Your task to perform on an android device: open app "Microsoft Outlook" (install if not already installed) and enter user name: "brand@gmail.com" and password: "persuasiveness" Image 0: 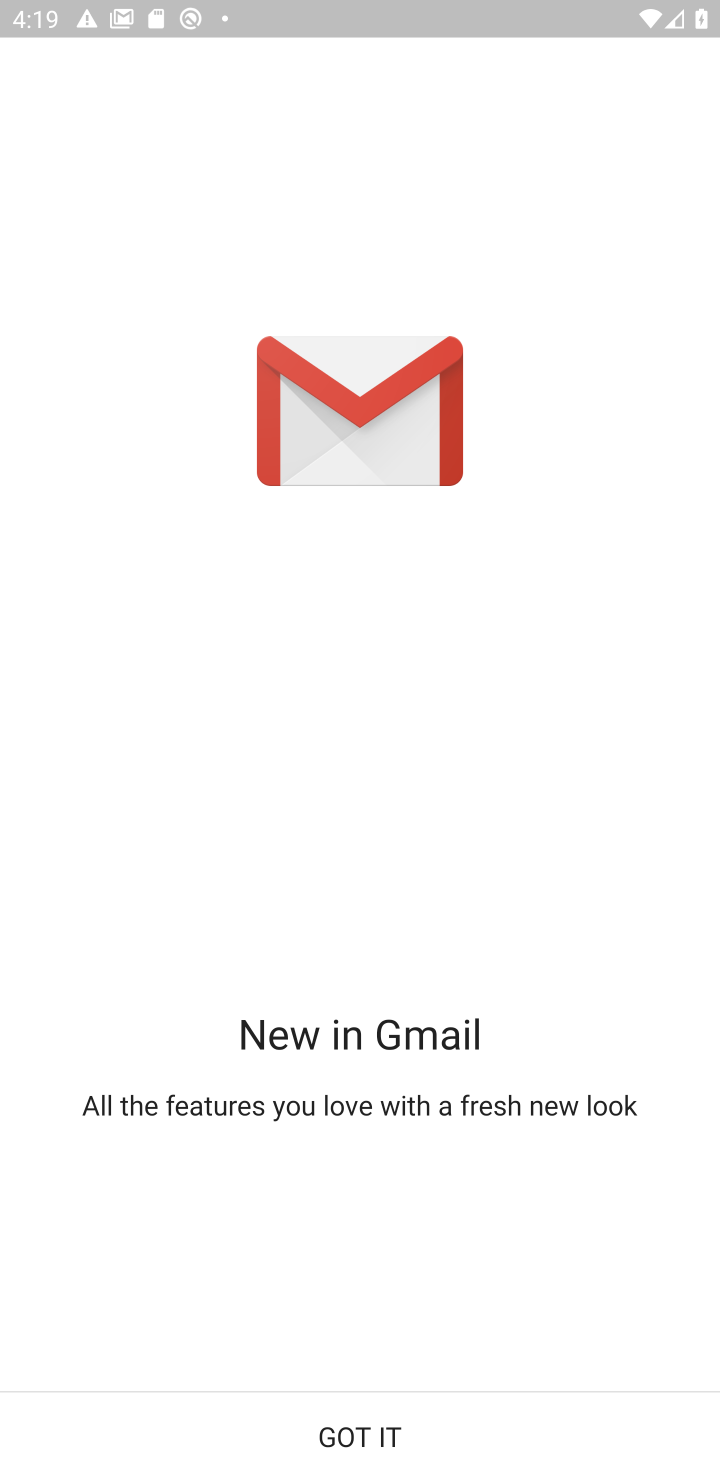
Step 0: press home button
Your task to perform on an android device: open app "Microsoft Outlook" (install if not already installed) and enter user name: "brand@gmail.com" and password: "persuasiveness" Image 1: 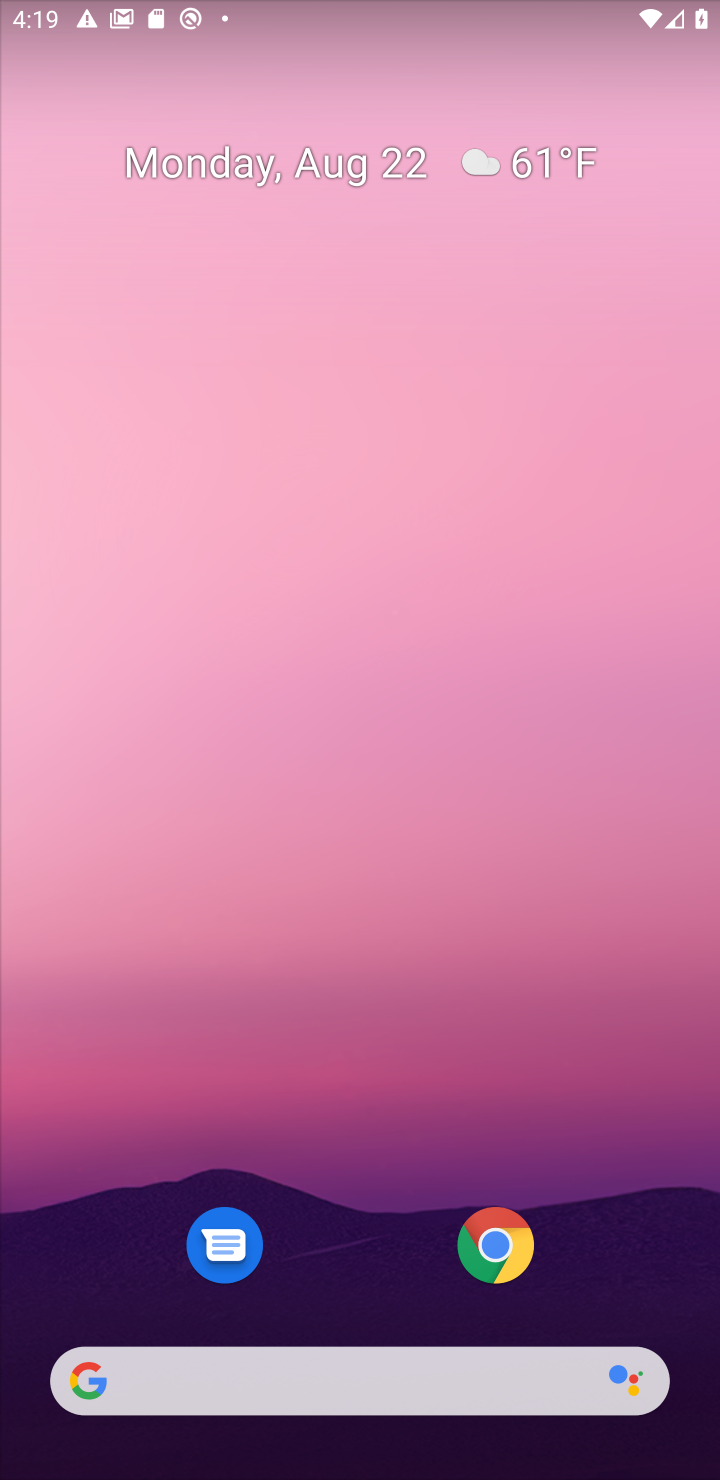
Step 1: drag from (587, 1232) to (564, 104)
Your task to perform on an android device: open app "Microsoft Outlook" (install if not already installed) and enter user name: "brand@gmail.com" and password: "persuasiveness" Image 2: 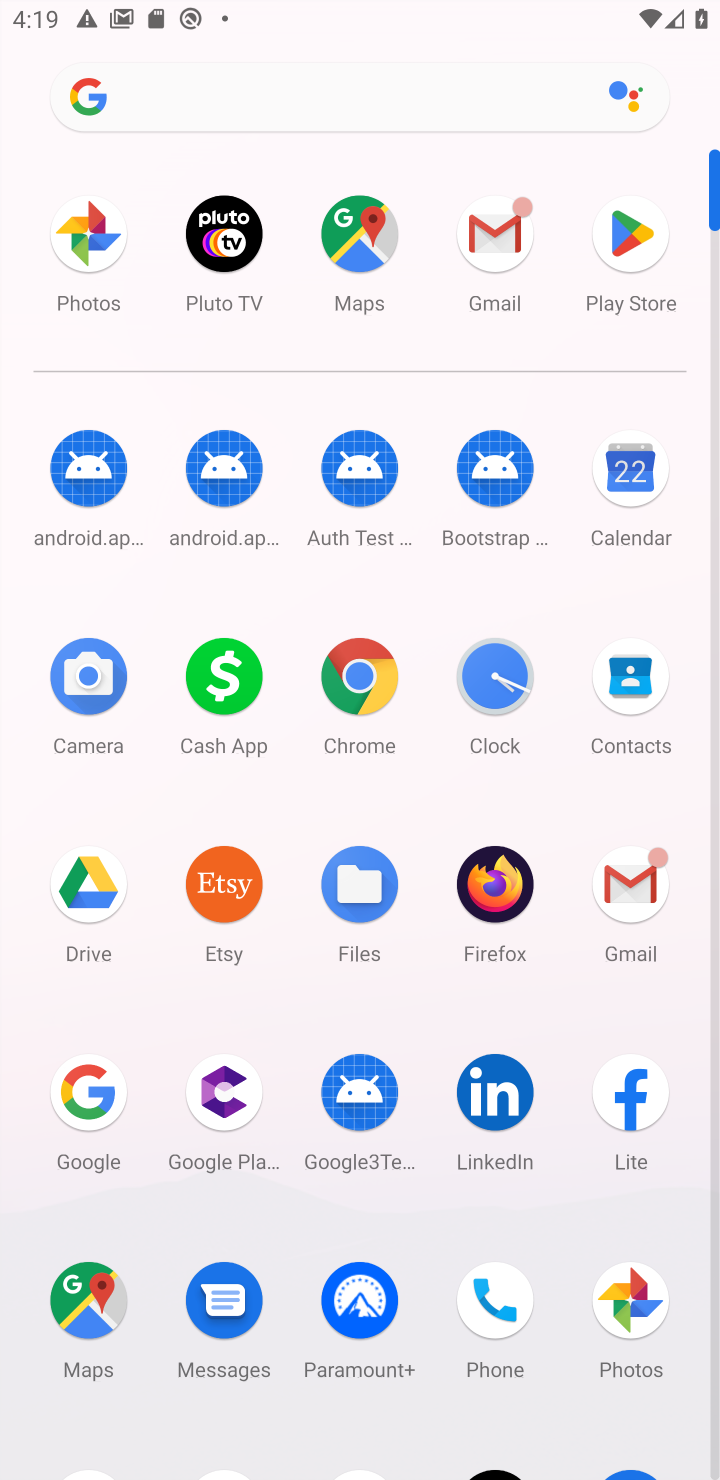
Step 2: click (624, 245)
Your task to perform on an android device: open app "Microsoft Outlook" (install if not already installed) and enter user name: "brand@gmail.com" and password: "persuasiveness" Image 3: 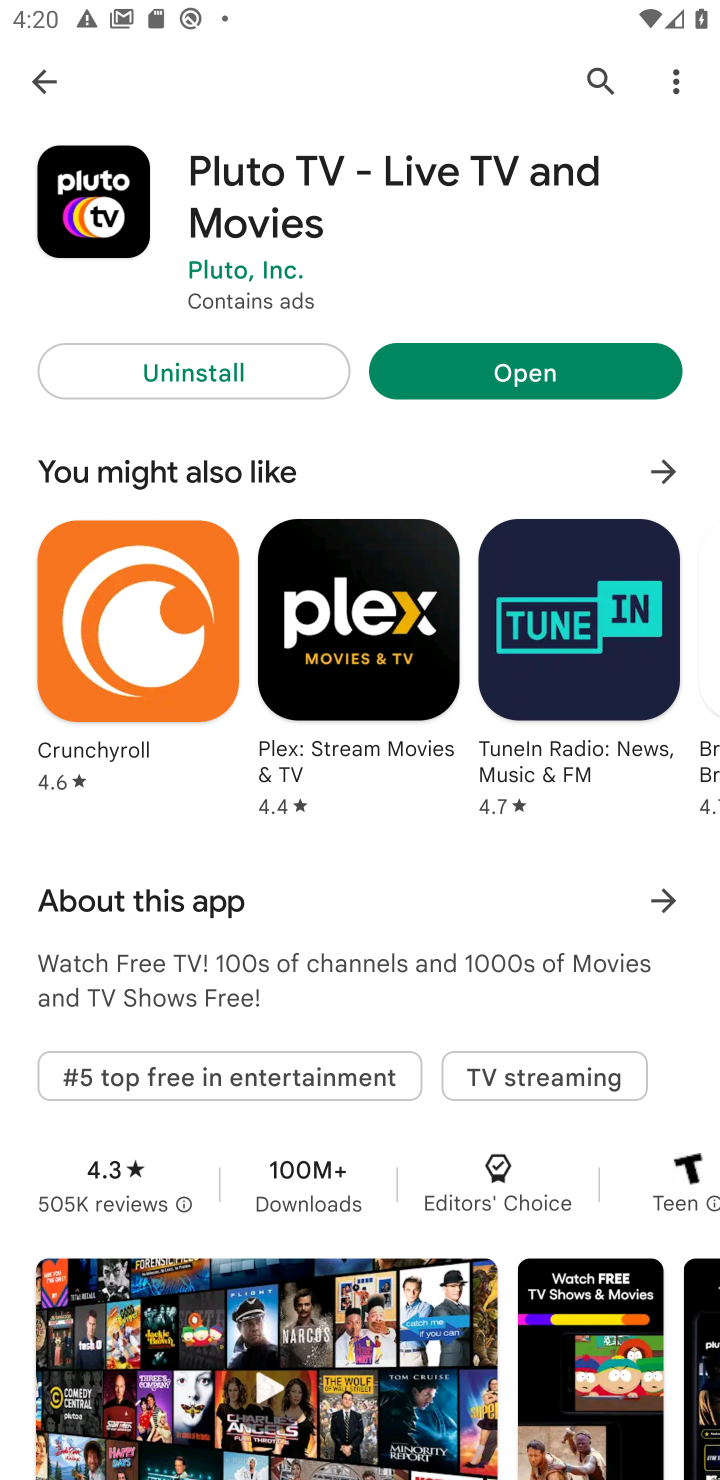
Step 3: press back button
Your task to perform on an android device: open app "Microsoft Outlook" (install if not already installed) and enter user name: "brand@gmail.com" and password: "persuasiveness" Image 4: 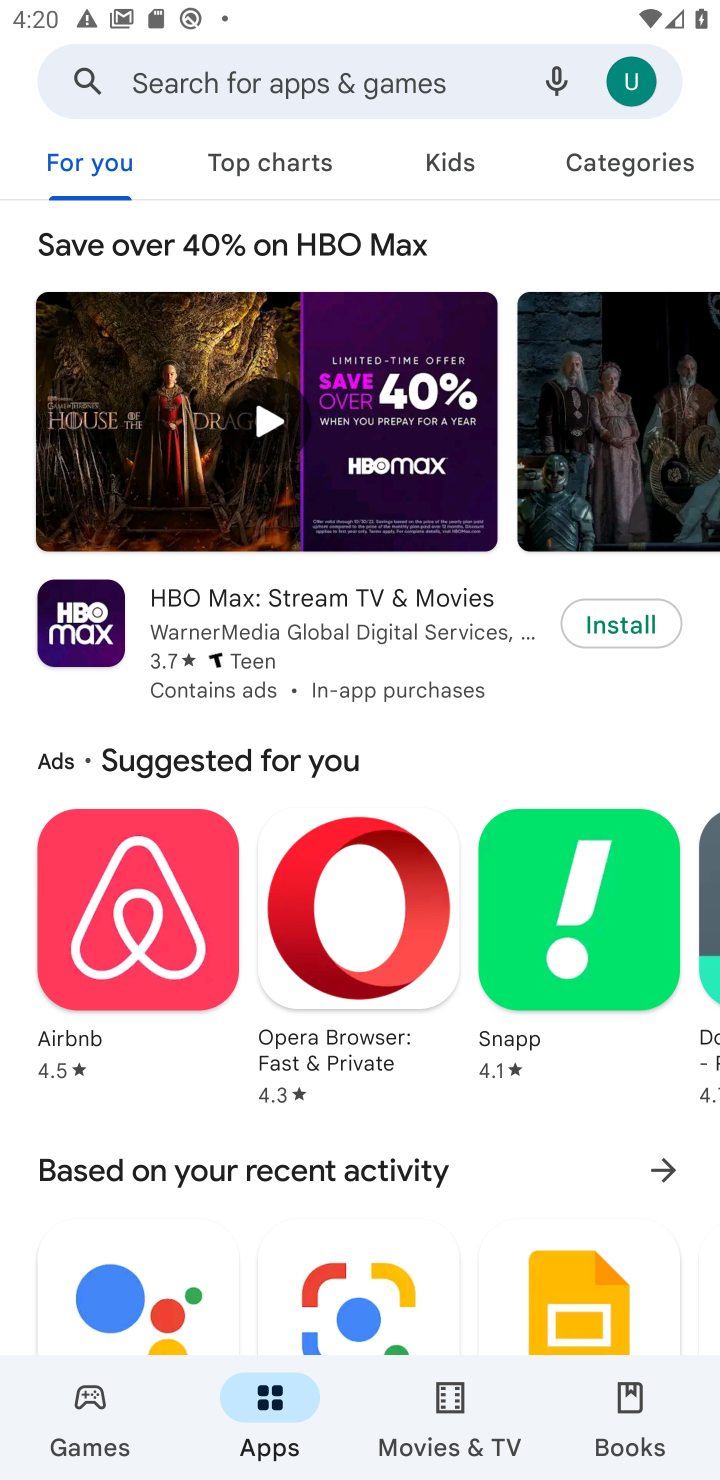
Step 4: click (389, 95)
Your task to perform on an android device: open app "Microsoft Outlook" (install if not already installed) and enter user name: "brand@gmail.com" and password: "persuasiveness" Image 5: 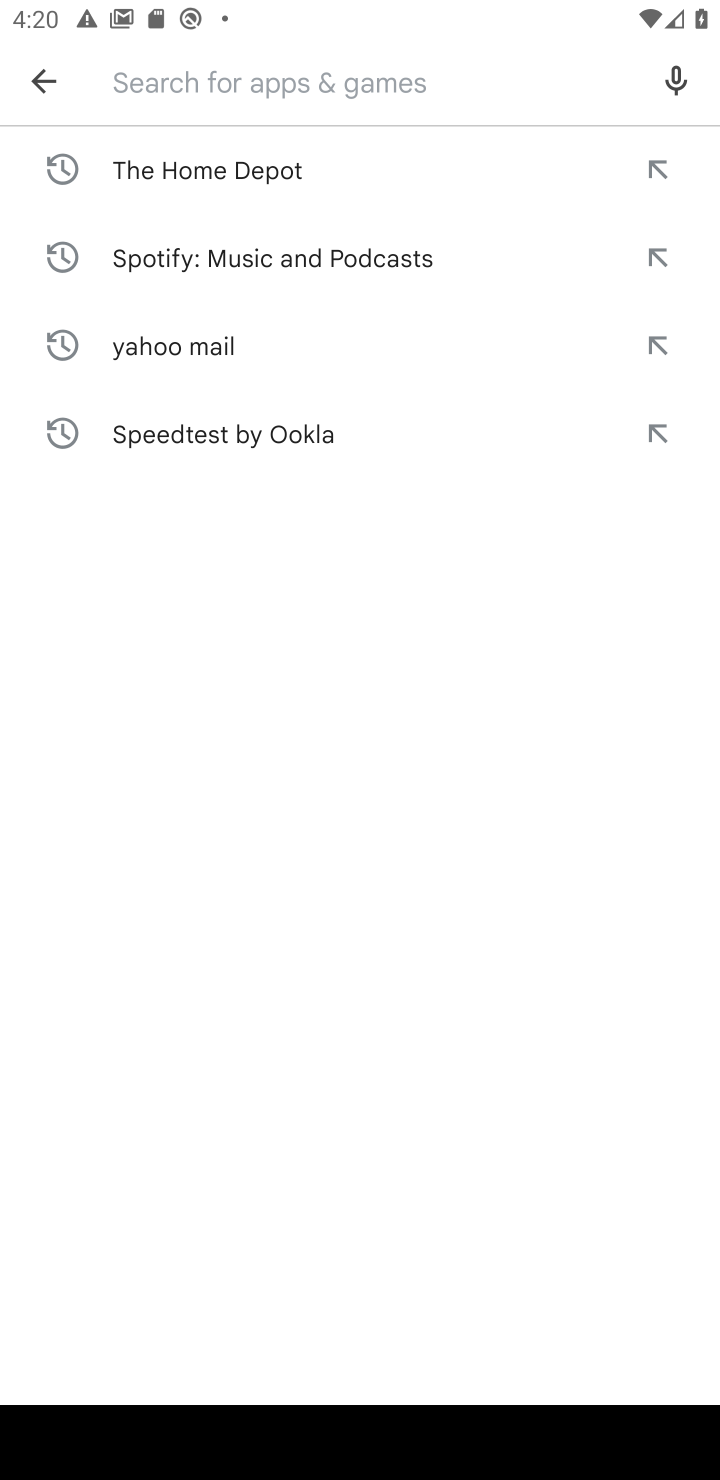
Step 5: press enter
Your task to perform on an android device: open app "Microsoft Outlook" (install if not already installed) and enter user name: "brand@gmail.com" and password: "persuasiveness" Image 6: 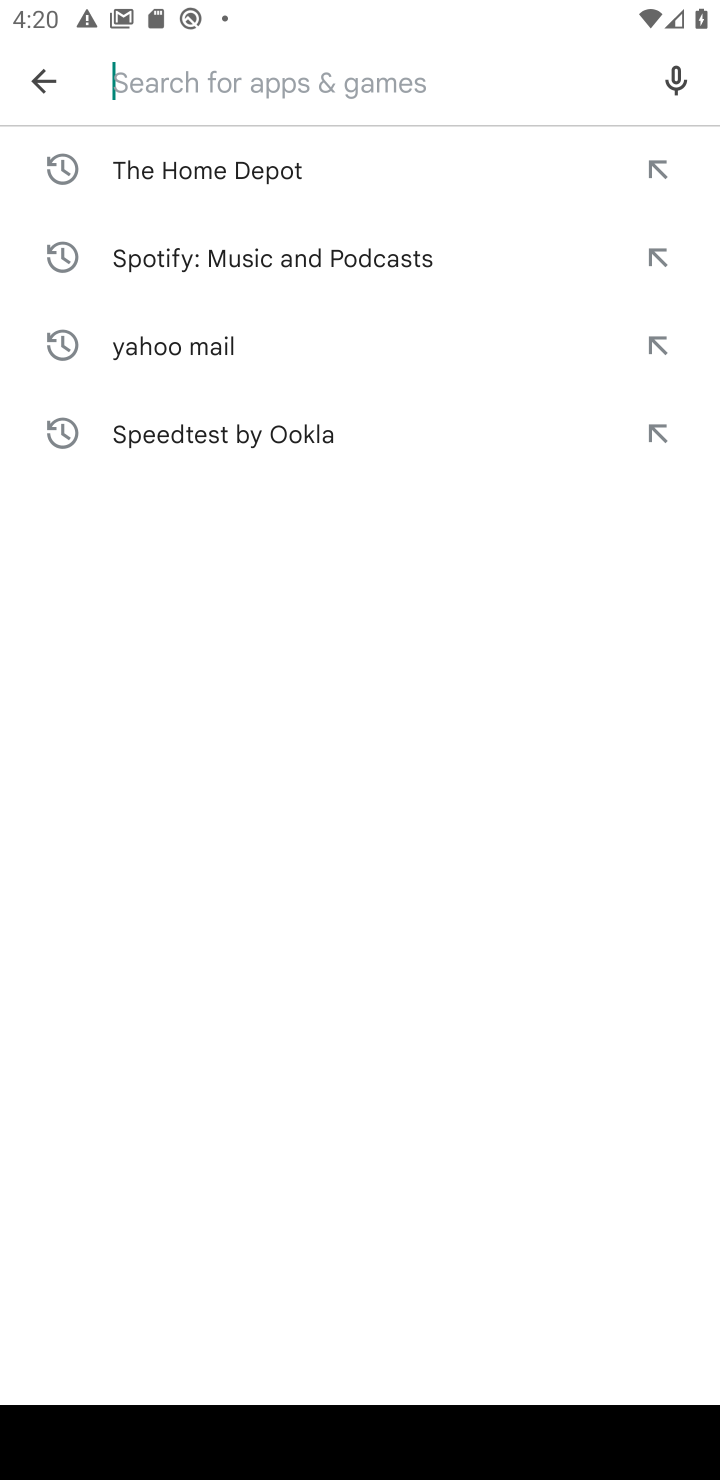
Step 6: type "Microsoft Outlook"
Your task to perform on an android device: open app "Microsoft Outlook" (install if not already installed) and enter user name: "brand@gmail.com" and password: "persuasiveness" Image 7: 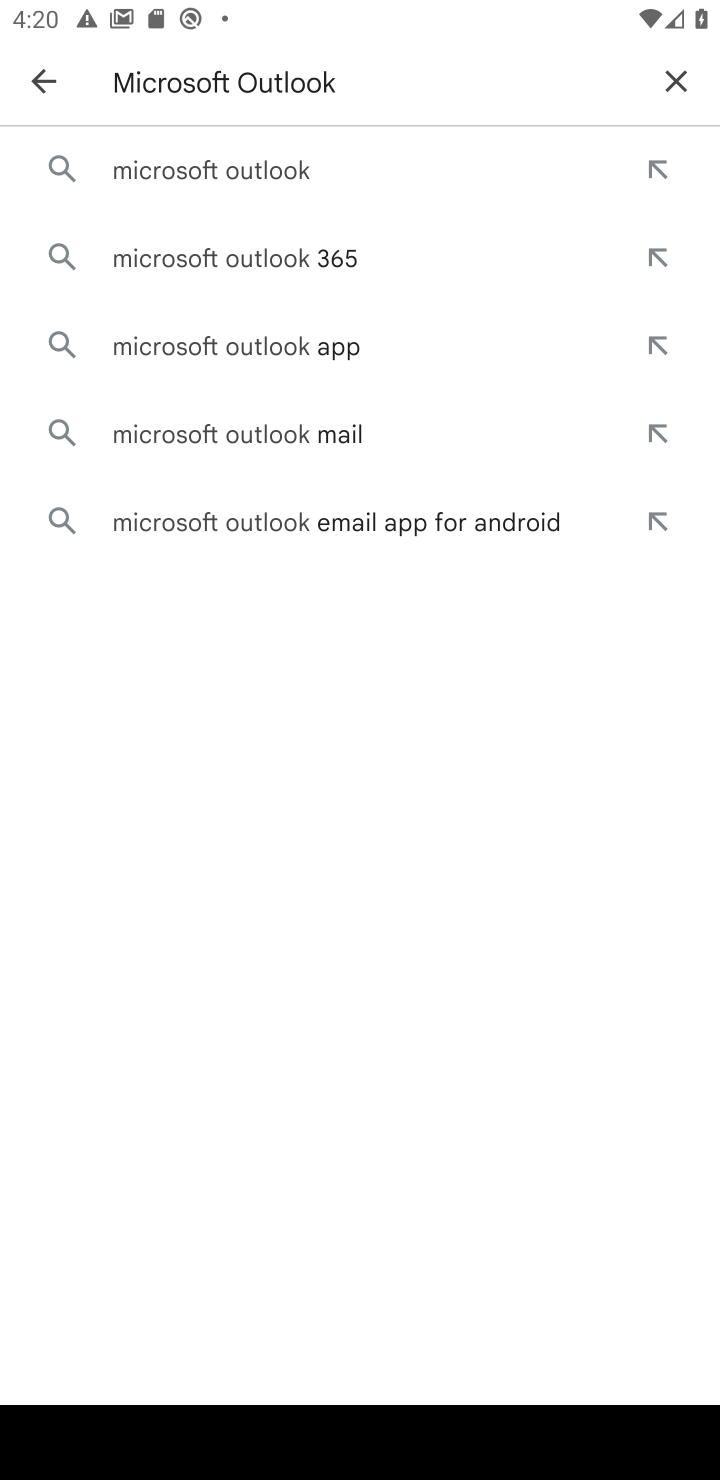
Step 7: click (309, 165)
Your task to perform on an android device: open app "Microsoft Outlook" (install if not already installed) and enter user name: "brand@gmail.com" and password: "persuasiveness" Image 8: 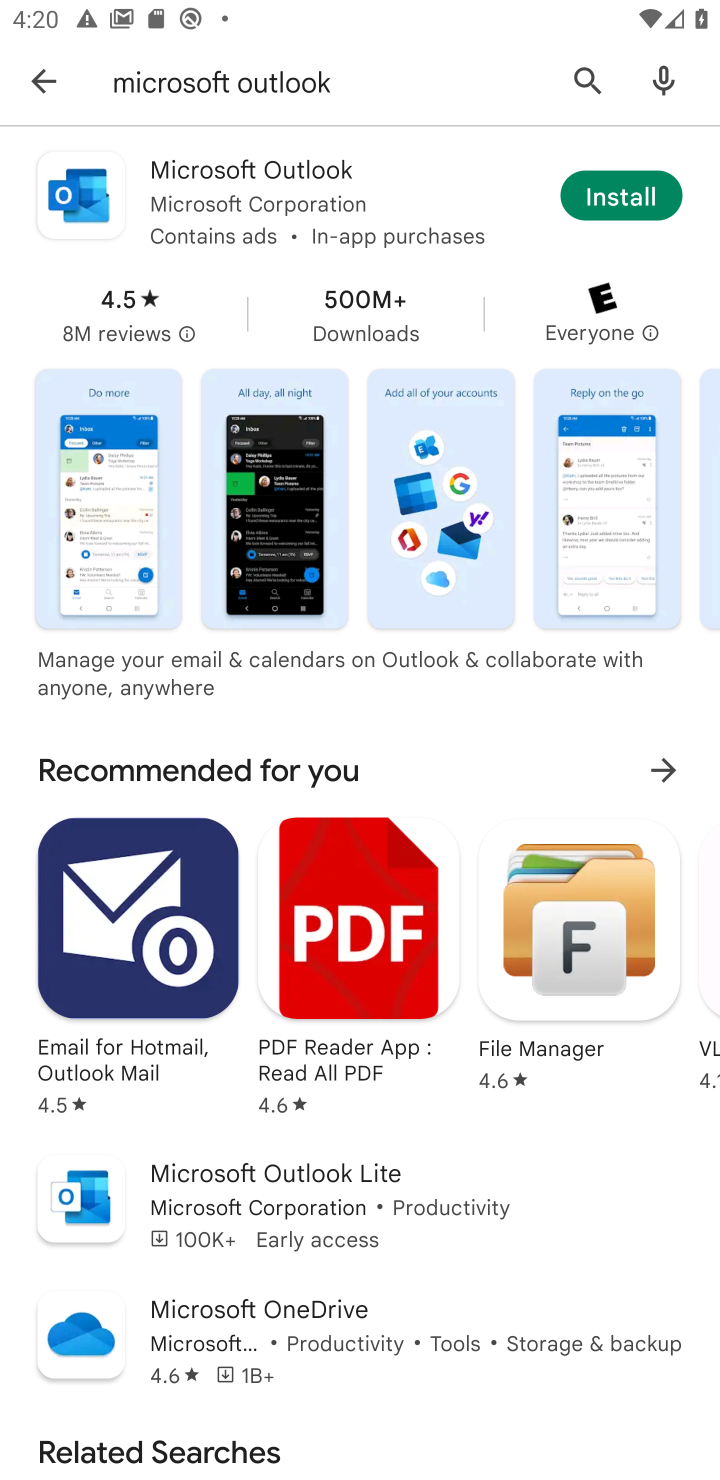
Step 8: click (642, 194)
Your task to perform on an android device: open app "Microsoft Outlook" (install if not already installed) and enter user name: "brand@gmail.com" and password: "persuasiveness" Image 9: 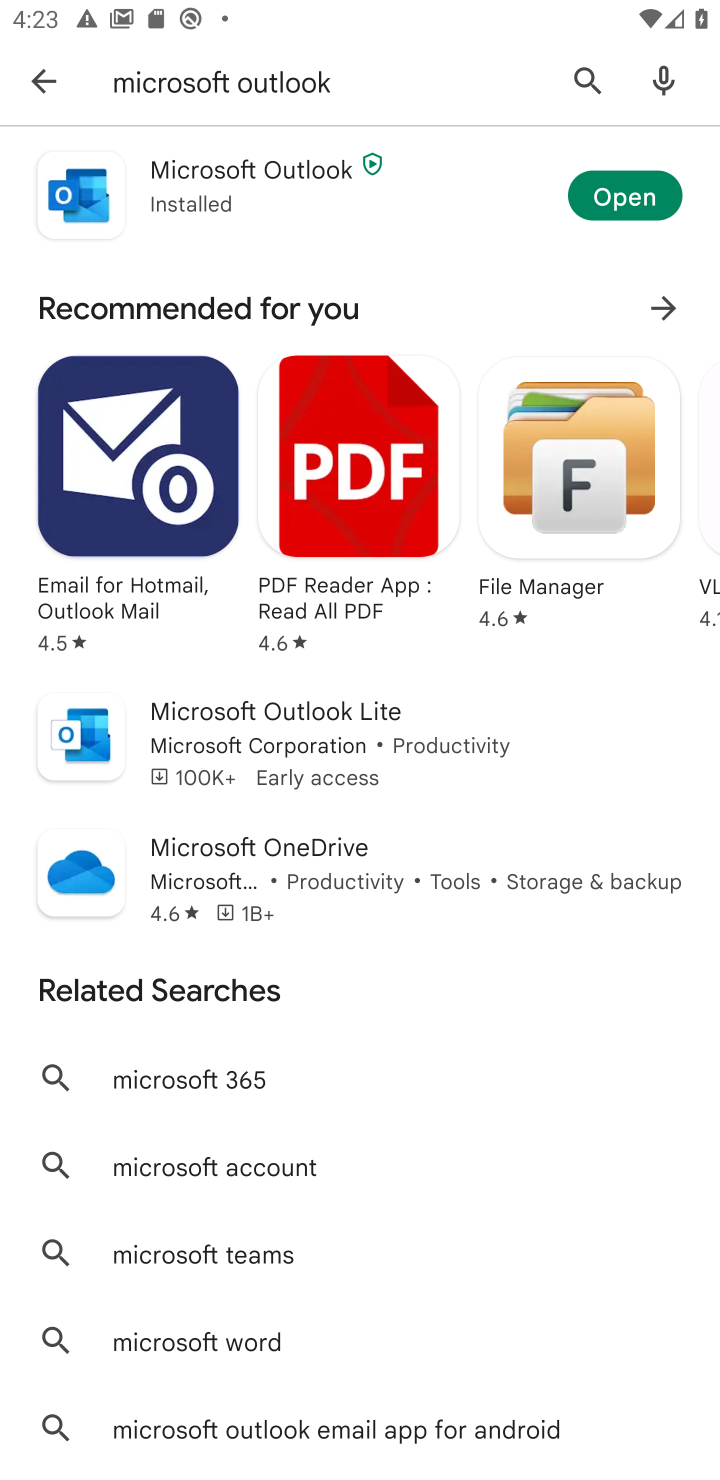
Step 9: click (641, 196)
Your task to perform on an android device: open app "Microsoft Outlook" (install if not already installed) and enter user name: "brand@gmail.com" and password: "persuasiveness" Image 10: 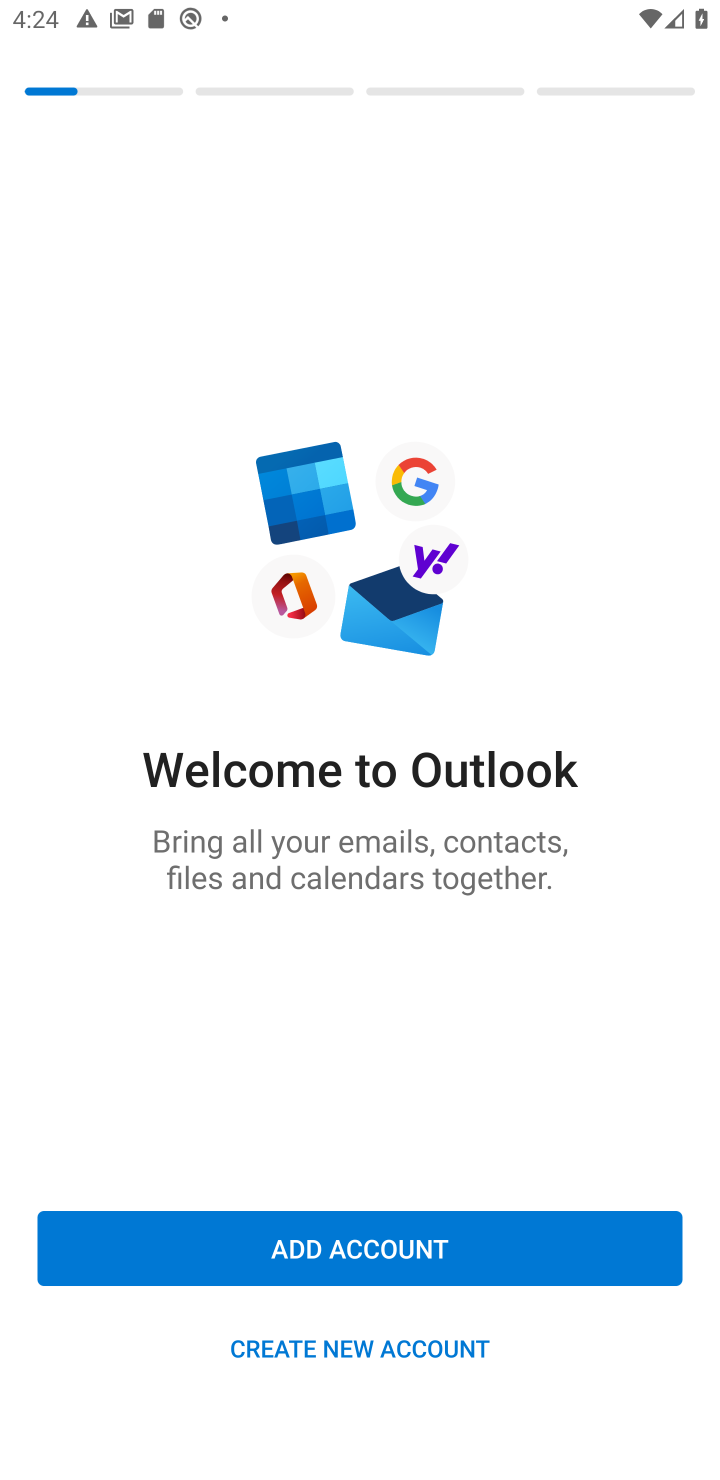
Step 10: click (517, 1244)
Your task to perform on an android device: open app "Microsoft Outlook" (install if not already installed) and enter user name: "brand@gmail.com" and password: "persuasiveness" Image 11: 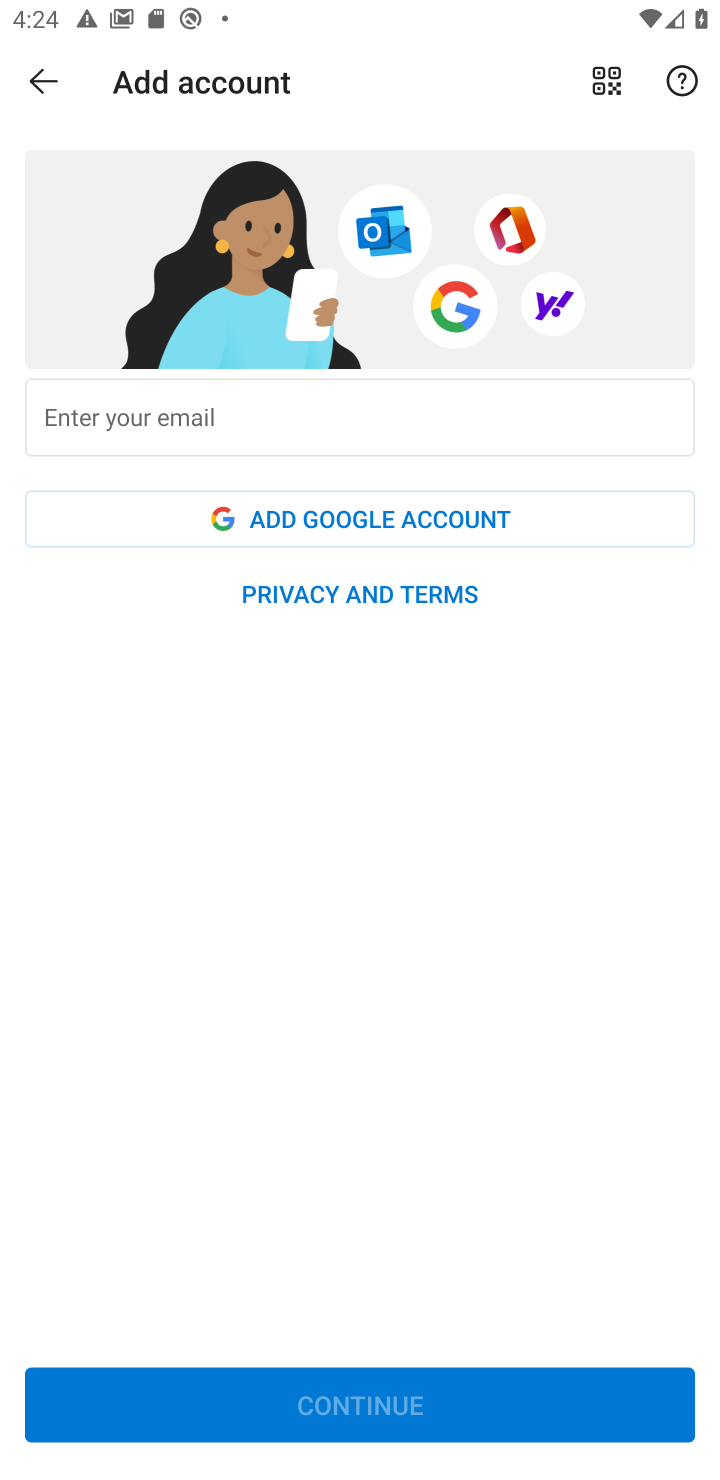
Step 11: click (280, 395)
Your task to perform on an android device: open app "Microsoft Outlook" (install if not already installed) and enter user name: "brand@gmail.com" and password: "persuasiveness" Image 12: 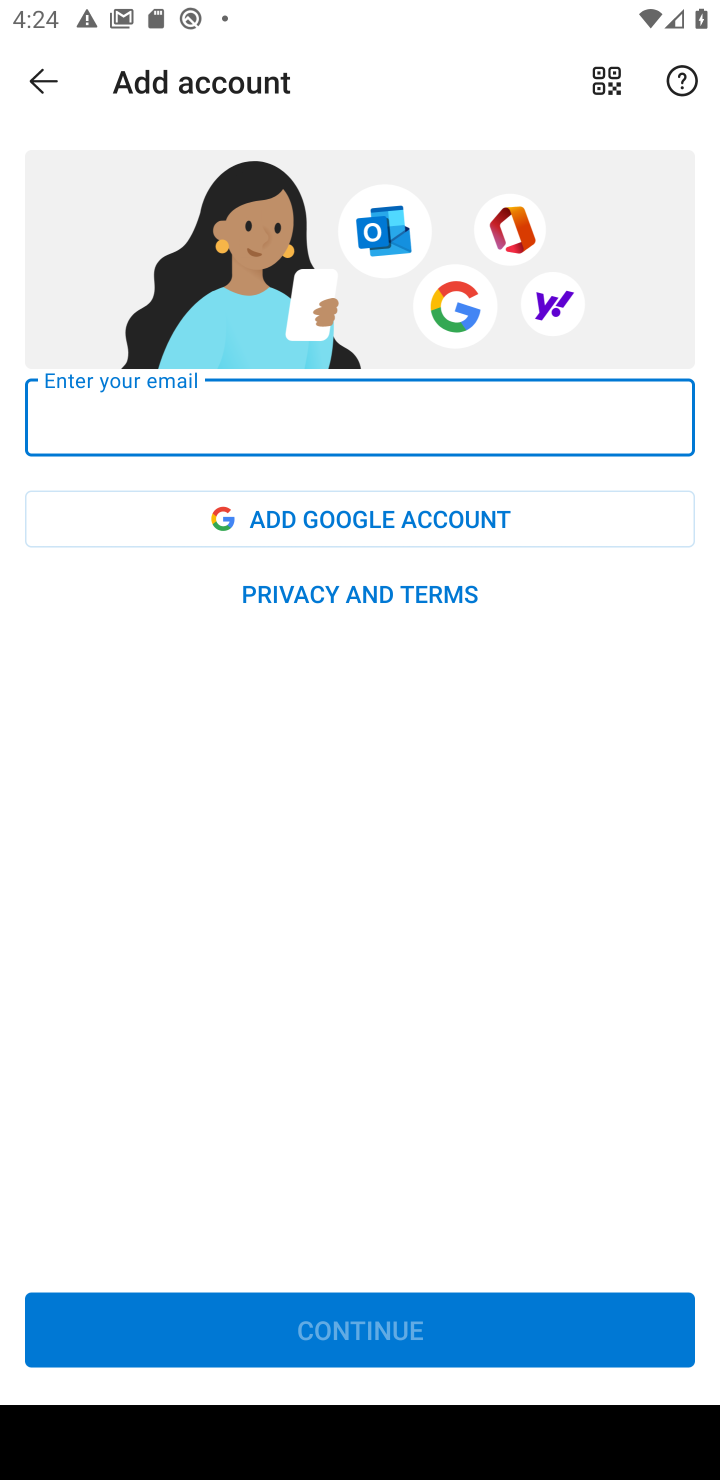
Step 12: type "brand@gmail.com"
Your task to perform on an android device: open app "Microsoft Outlook" (install if not already installed) and enter user name: "brand@gmail.com" and password: "persuasiveness" Image 13: 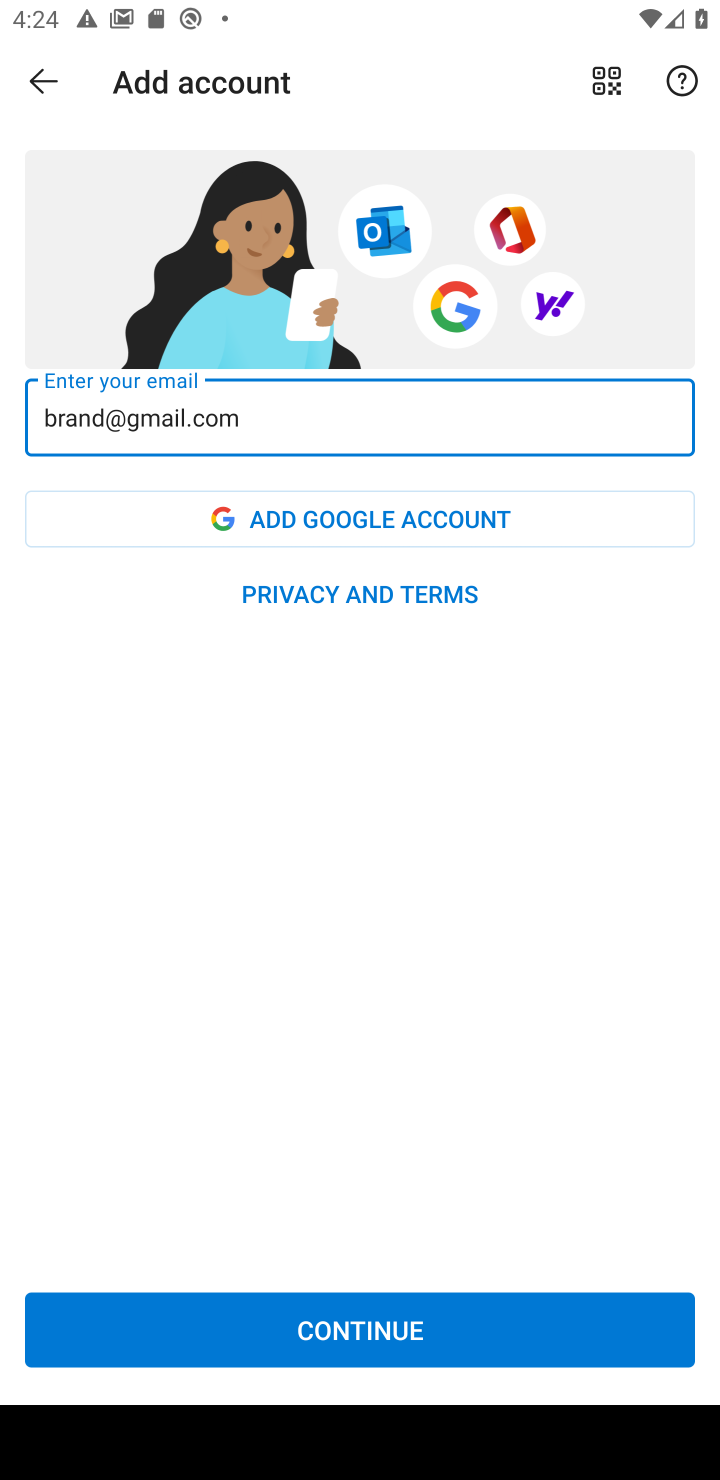
Step 13: click (370, 1330)
Your task to perform on an android device: open app "Microsoft Outlook" (install if not already installed) and enter user name: "brand@gmail.com" and password: "persuasiveness" Image 14: 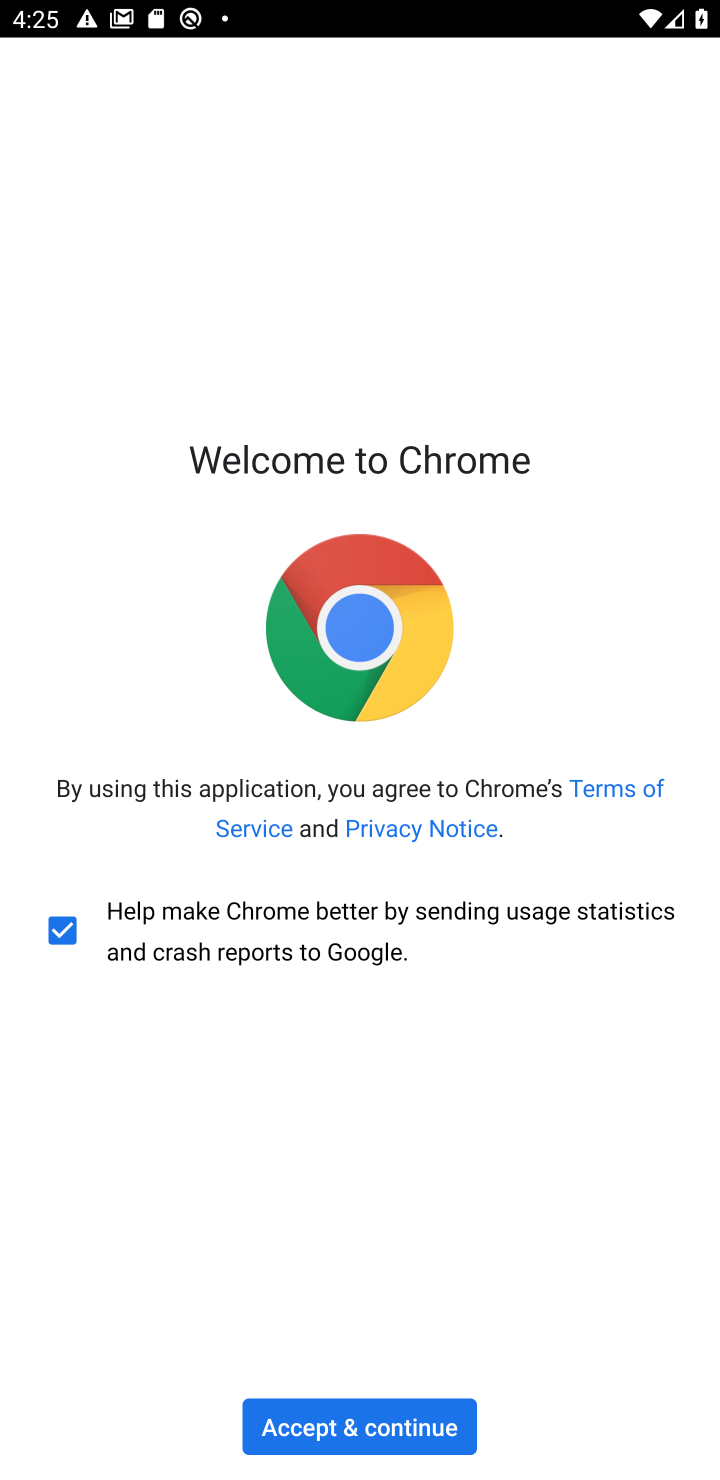
Step 14: task complete